Your task to perform on an android device: search for starred emails in the gmail app Image 0: 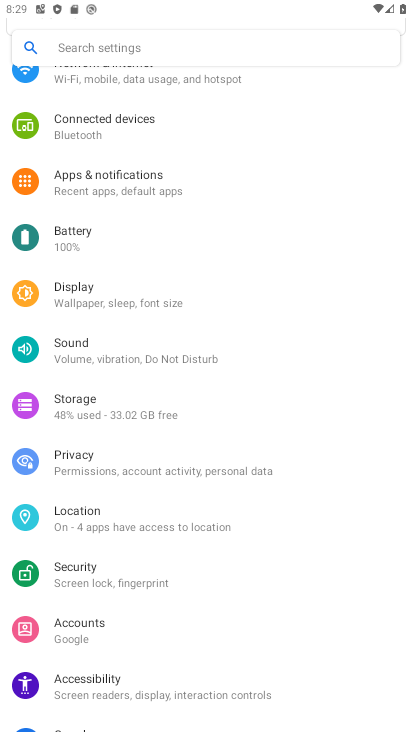
Step 0: press home button
Your task to perform on an android device: search for starred emails in the gmail app Image 1: 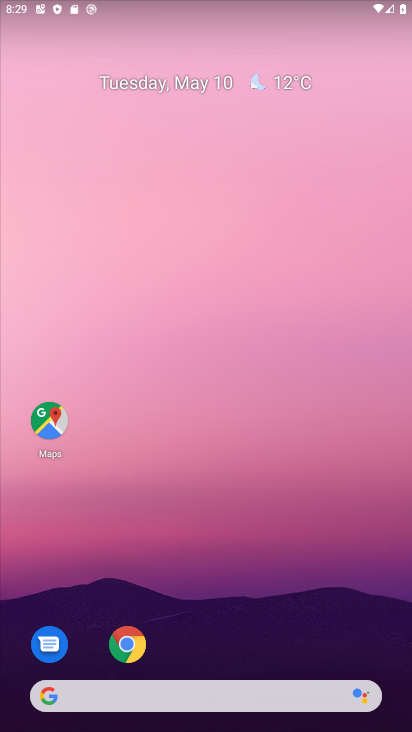
Step 1: drag from (381, 656) to (263, 131)
Your task to perform on an android device: search for starred emails in the gmail app Image 2: 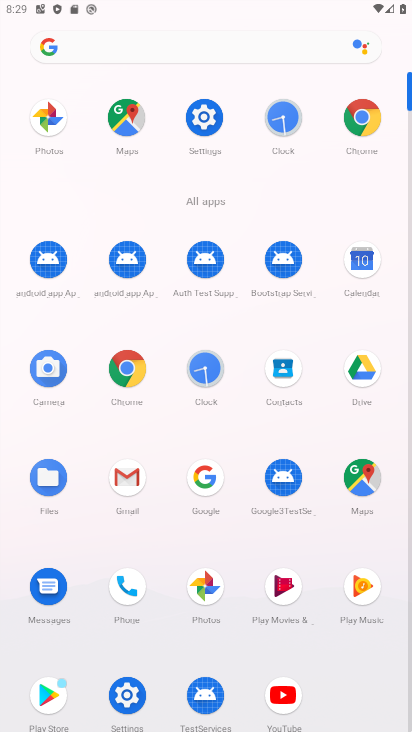
Step 2: click (126, 479)
Your task to perform on an android device: search for starred emails in the gmail app Image 3: 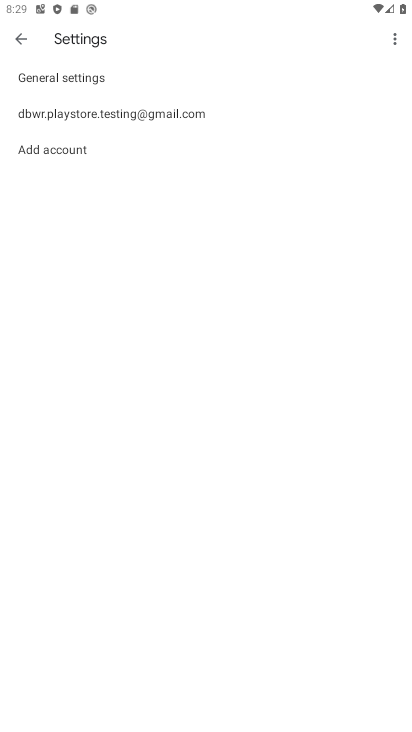
Step 3: press back button
Your task to perform on an android device: search for starred emails in the gmail app Image 4: 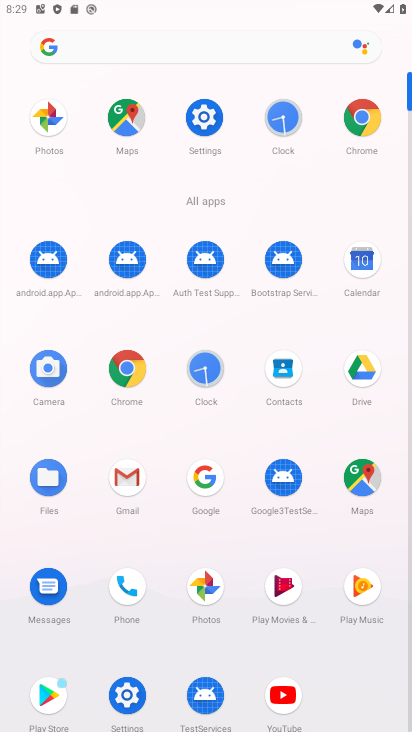
Step 4: click (125, 475)
Your task to perform on an android device: search for starred emails in the gmail app Image 5: 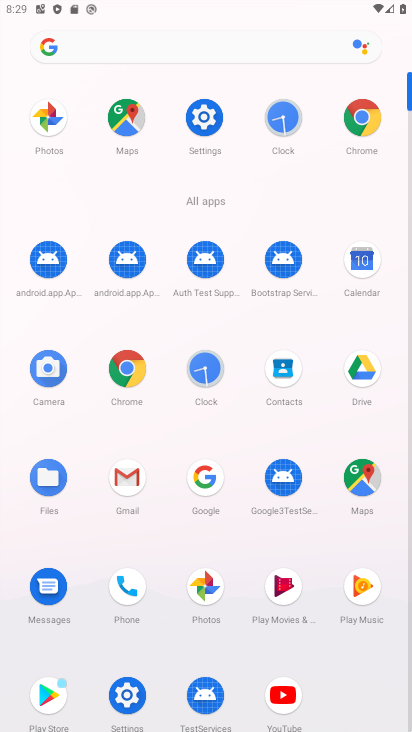
Step 5: click (125, 475)
Your task to perform on an android device: search for starred emails in the gmail app Image 6: 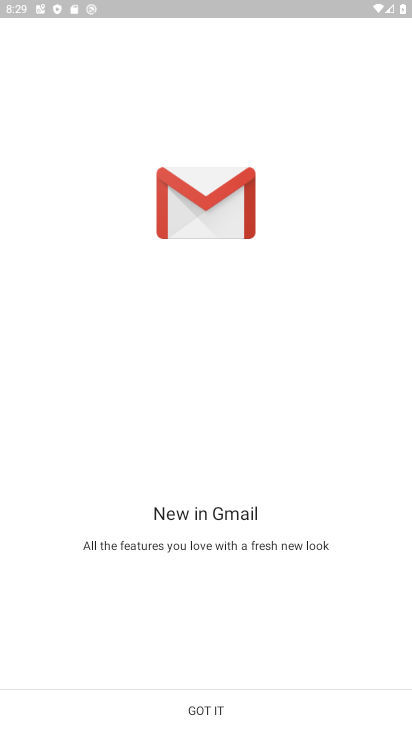
Step 6: click (209, 712)
Your task to perform on an android device: search for starred emails in the gmail app Image 7: 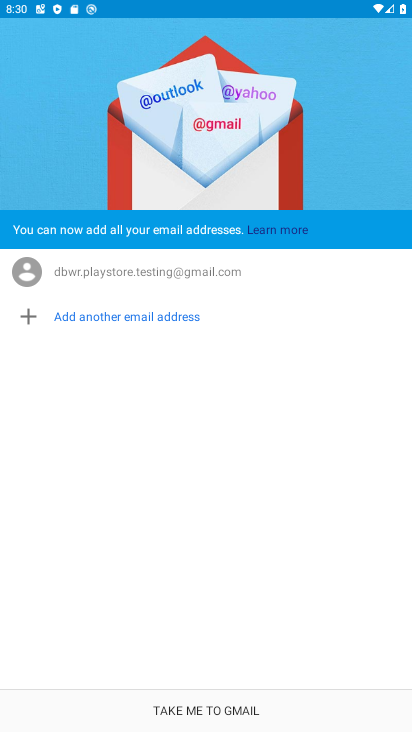
Step 7: click (209, 712)
Your task to perform on an android device: search for starred emails in the gmail app Image 8: 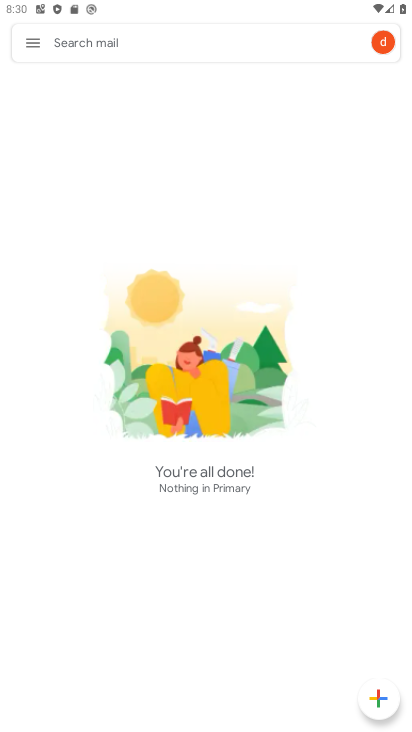
Step 8: click (31, 39)
Your task to perform on an android device: search for starred emails in the gmail app Image 9: 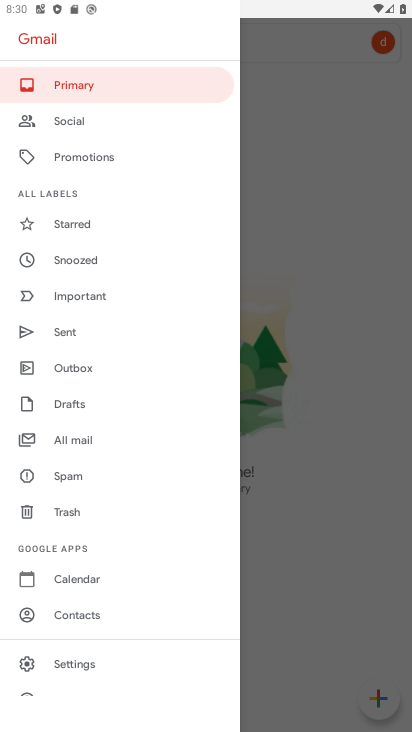
Step 9: click (75, 224)
Your task to perform on an android device: search for starred emails in the gmail app Image 10: 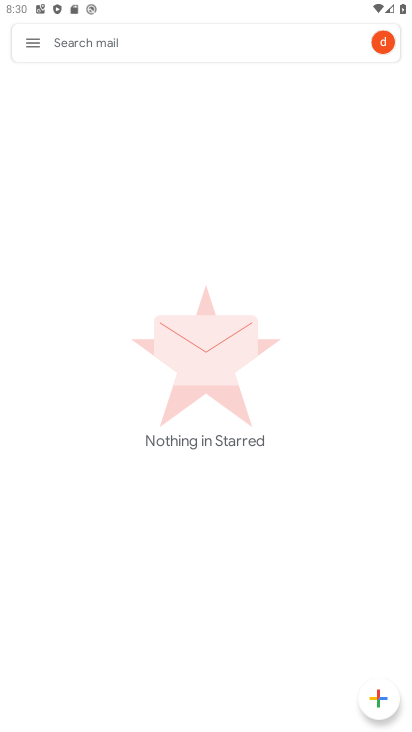
Step 10: task complete